Your task to perform on an android device: move an email to a new category in the gmail app Image 0: 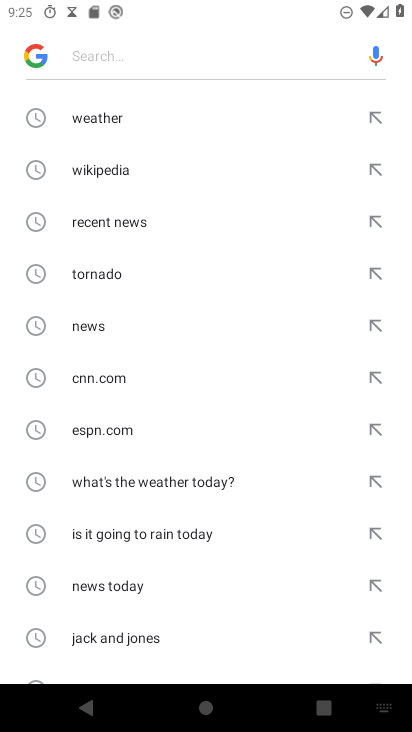
Step 0: press home button
Your task to perform on an android device: move an email to a new category in the gmail app Image 1: 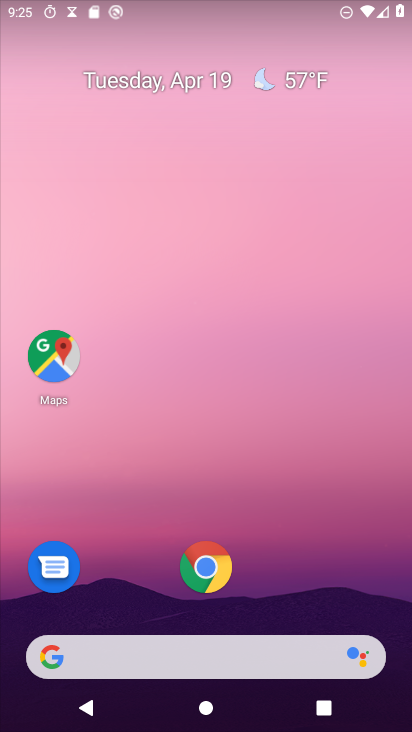
Step 1: drag from (371, 580) to (320, 51)
Your task to perform on an android device: move an email to a new category in the gmail app Image 2: 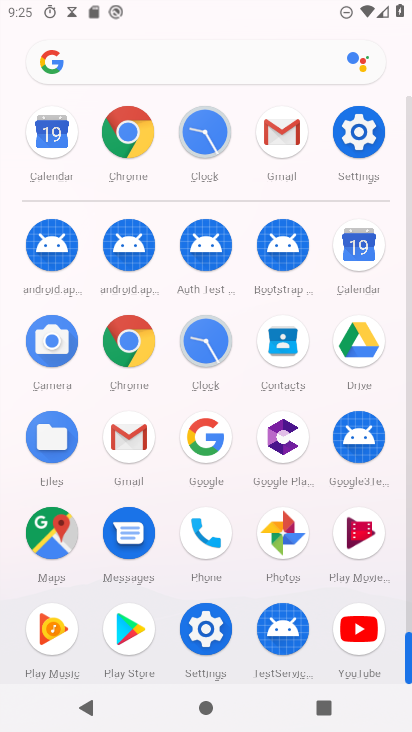
Step 2: click (271, 129)
Your task to perform on an android device: move an email to a new category in the gmail app Image 3: 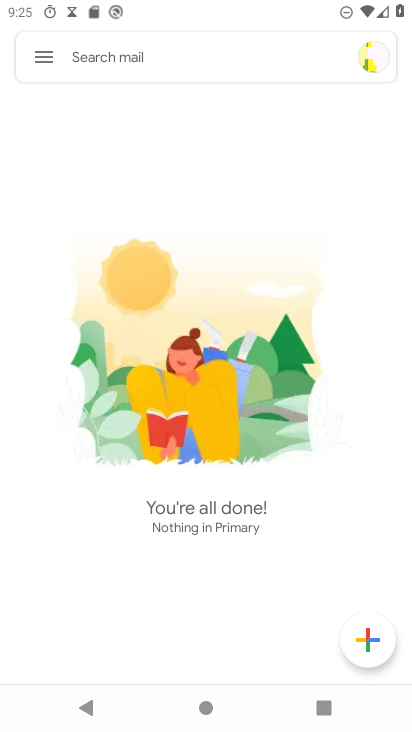
Step 3: click (40, 59)
Your task to perform on an android device: move an email to a new category in the gmail app Image 4: 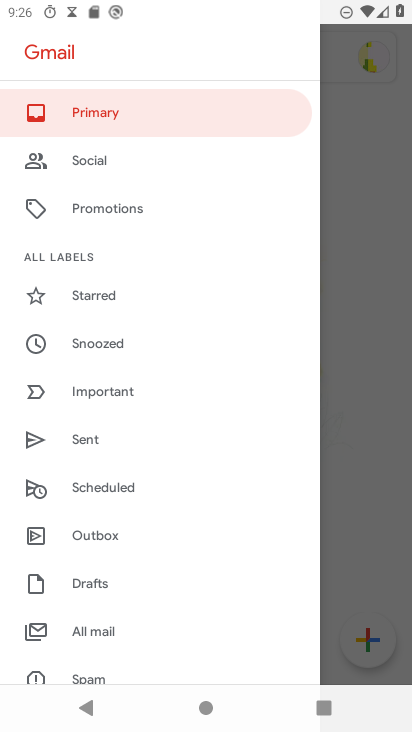
Step 4: drag from (106, 606) to (135, 282)
Your task to perform on an android device: move an email to a new category in the gmail app Image 5: 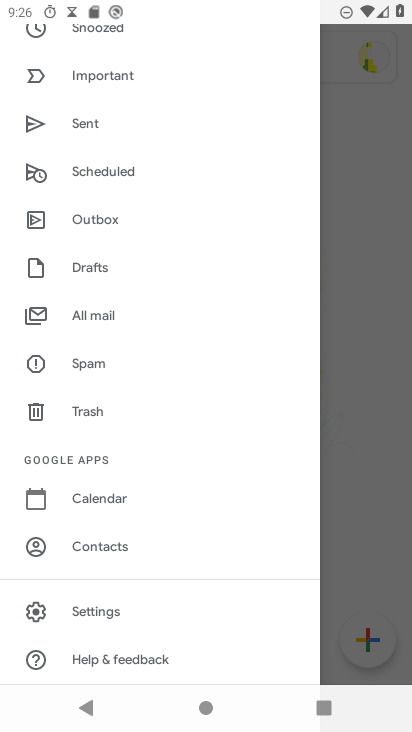
Step 5: click (101, 324)
Your task to perform on an android device: move an email to a new category in the gmail app Image 6: 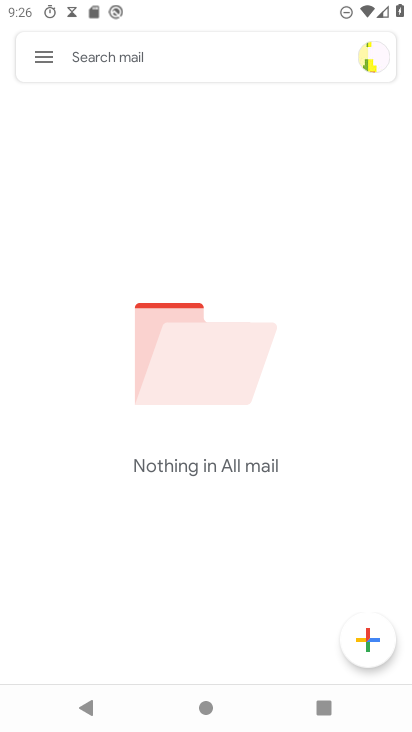
Step 6: task complete